Your task to perform on an android device: Open Yahoo.com Image 0: 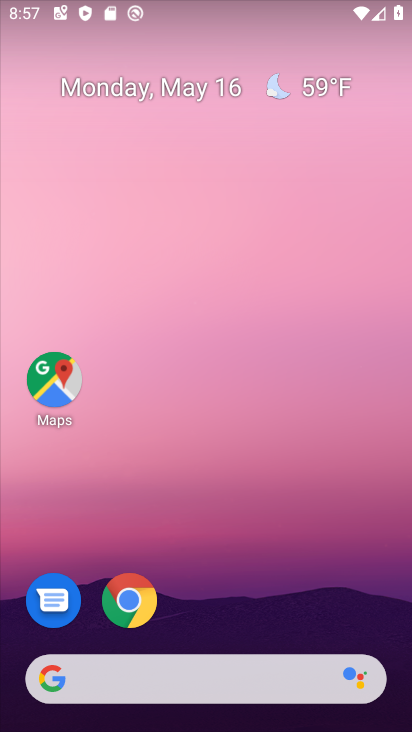
Step 0: click (128, 611)
Your task to perform on an android device: Open Yahoo.com Image 1: 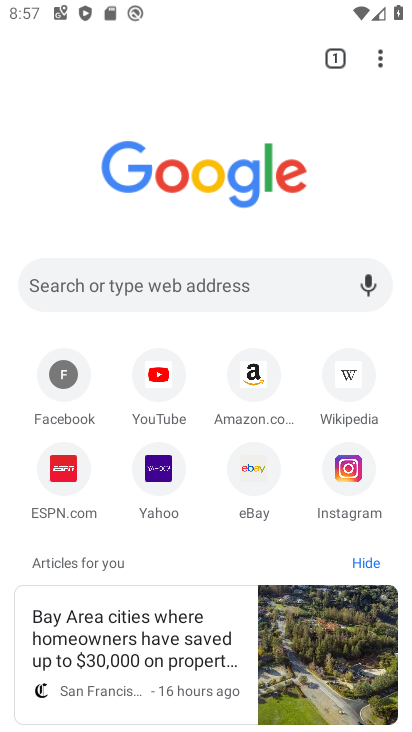
Step 1: click (155, 467)
Your task to perform on an android device: Open Yahoo.com Image 2: 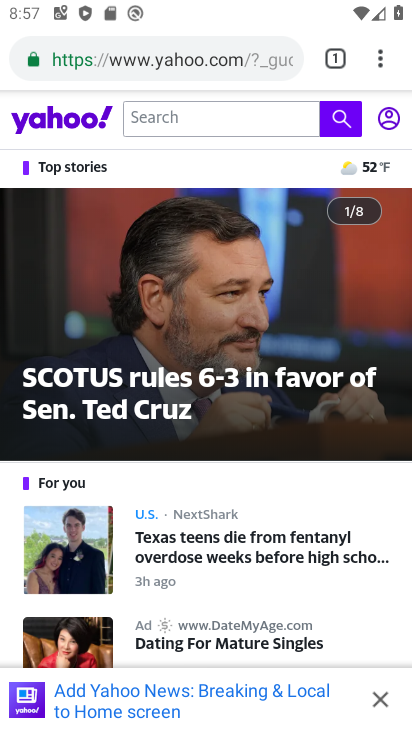
Step 2: task complete